Your task to perform on an android device: What is the recent news? Image 0: 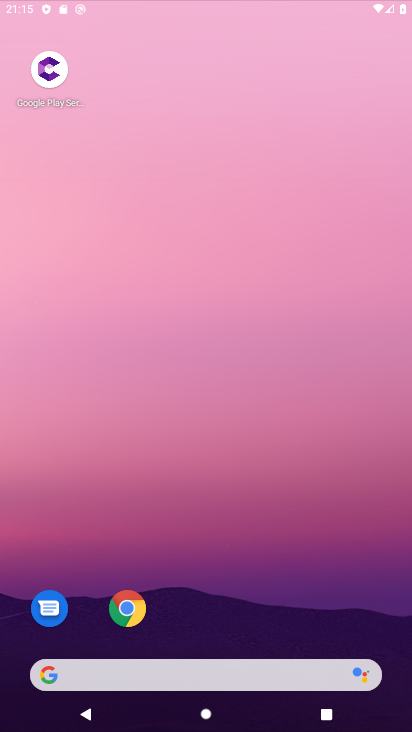
Step 0: click (195, 74)
Your task to perform on an android device: What is the recent news? Image 1: 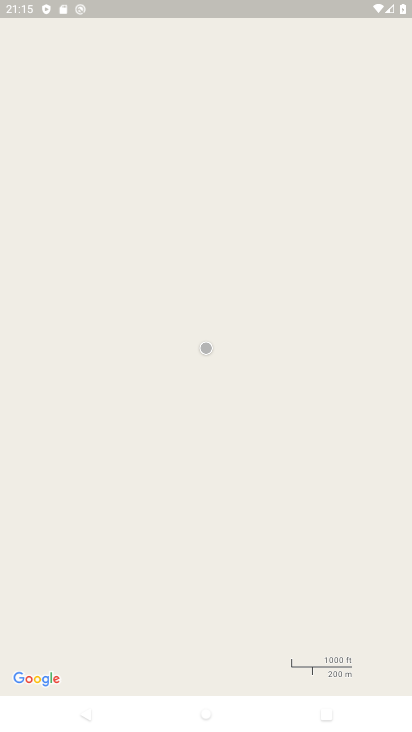
Step 1: press home button
Your task to perform on an android device: What is the recent news? Image 2: 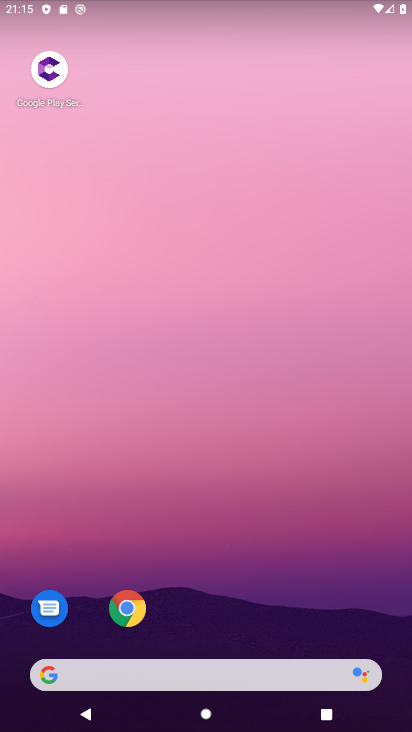
Step 2: drag from (197, 251) to (252, 9)
Your task to perform on an android device: What is the recent news? Image 3: 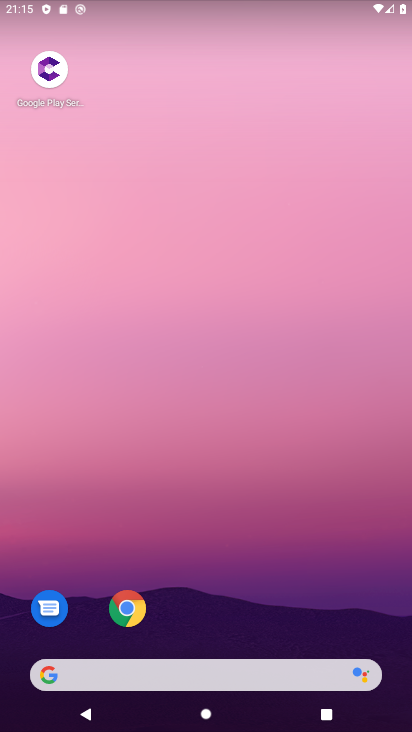
Step 3: click (157, 677)
Your task to perform on an android device: What is the recent news? Image 4: 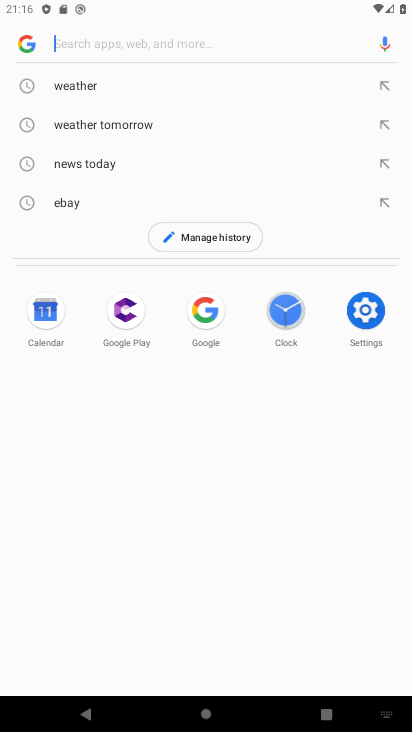
Step 4: type "recent news"
Your task to perform on an android device: What is the recent news? Image 5: 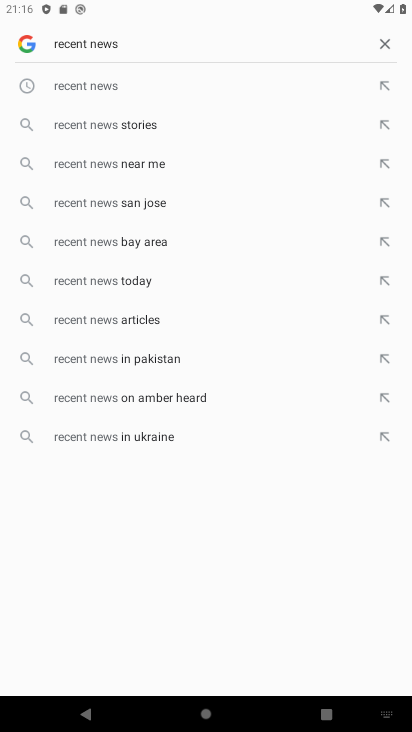
Step 5: click (106, 97)
Your task to perform on an android device: What is the recent news? Image 6: 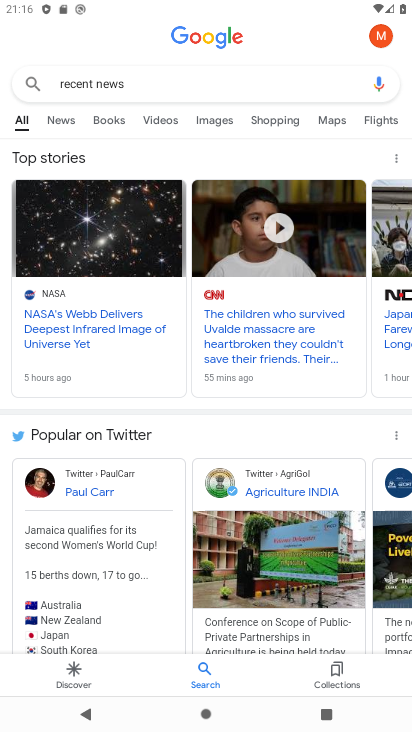
Step 6: task complete